Your task to perform on an android device: Go to network settings Image 0: 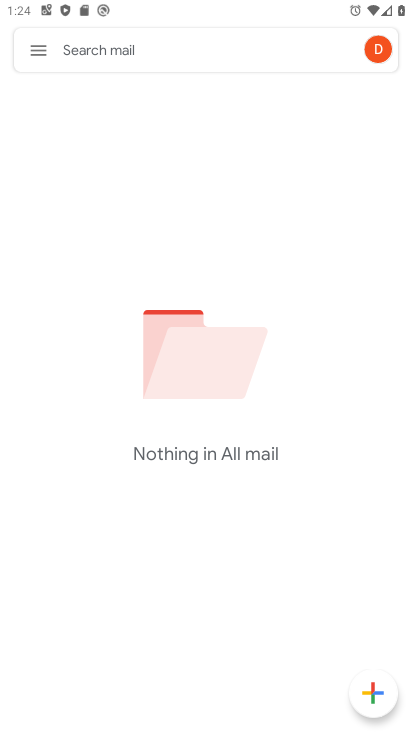
Step 0: press home button
Your task to perform on an android device: Go to network settings Image 1: 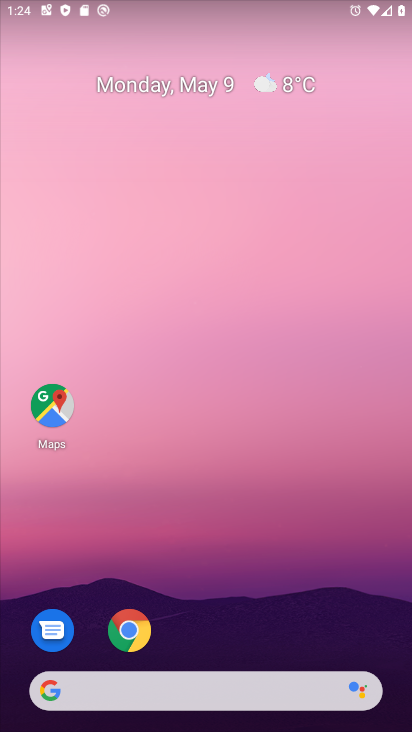
Step 1: drag from (310, 614) to (191, 97)
Your task to perform on an android device: Go to network settings Image 2: 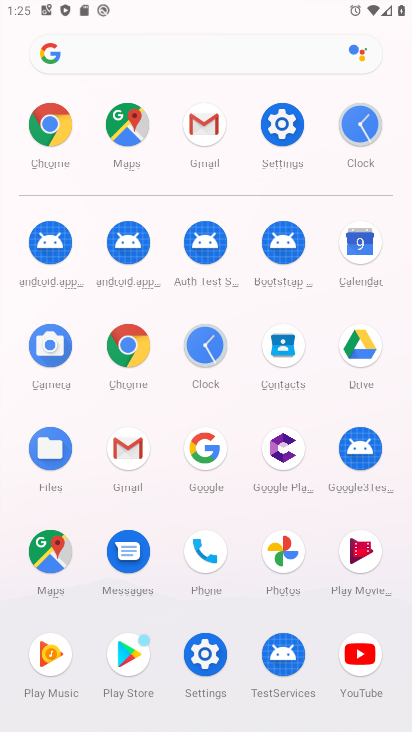
Step 2: click (199, 641)
Your task to perform on an android device: Go to network settings Image 3: 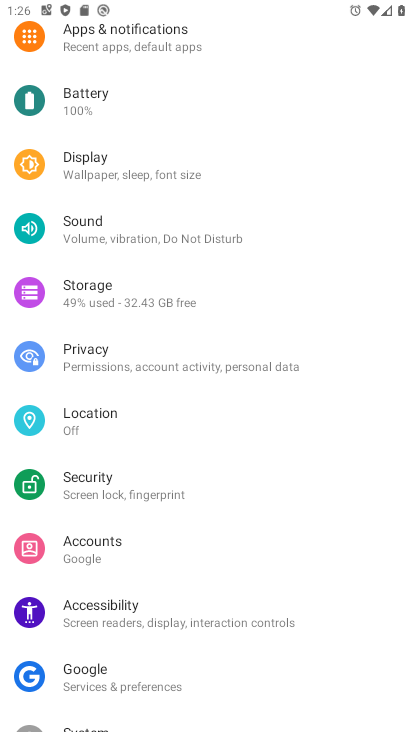
Step 3: drag from (217, 96) to (201, 650)
Your task to perform on an android device: Go to network settings Image 4: 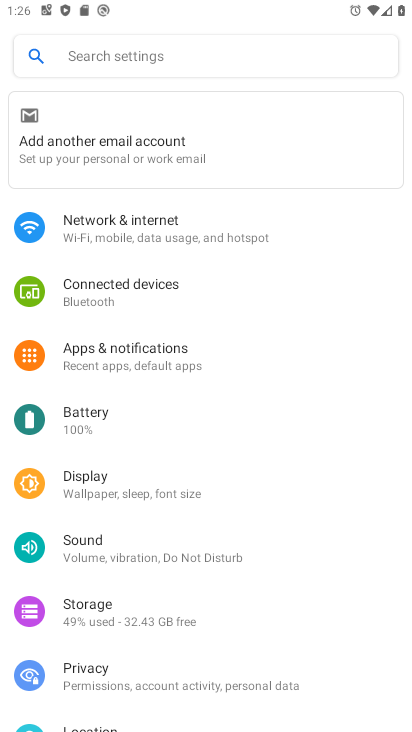
Step 4: click (139, 225)
Your task to perform on an android device: Go to network settings Image 5: 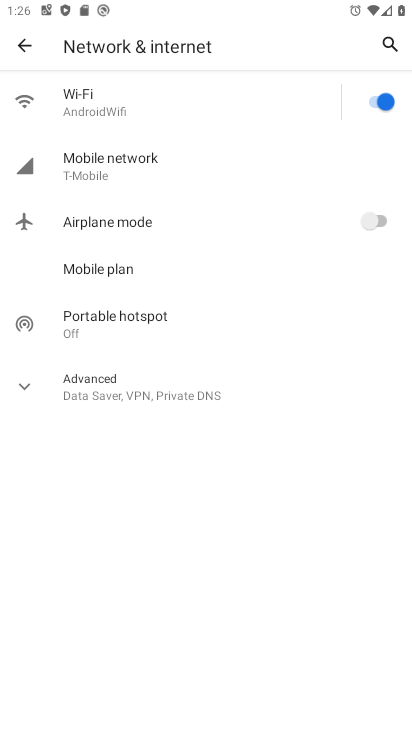
Step 5: task complete